Your task to perform on an android device: create a new album in the google photos Image 0: 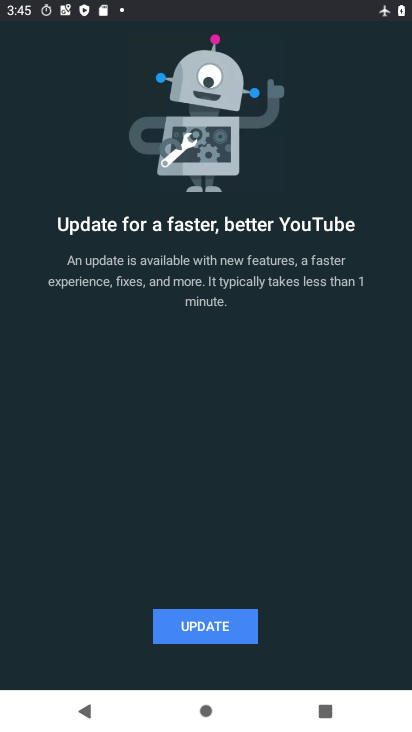
Step 0: press home button
Your task to perform on an android device: create a new album in the google photos Image 1: 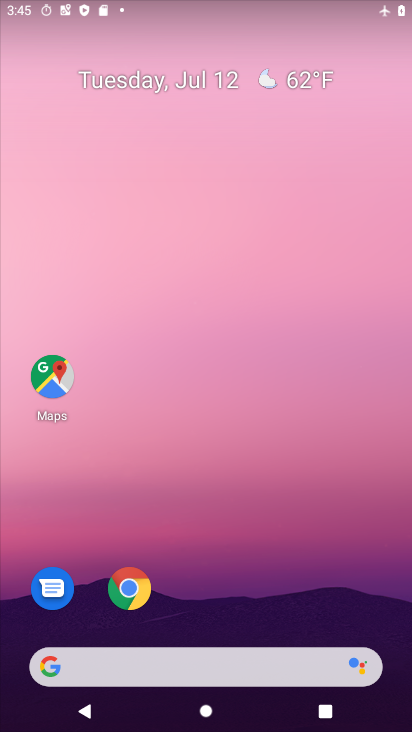
Step 1: drag from (194, 587) to (169, 9)
Your task to perform on an android device: create a new album in the google photos Image 2: 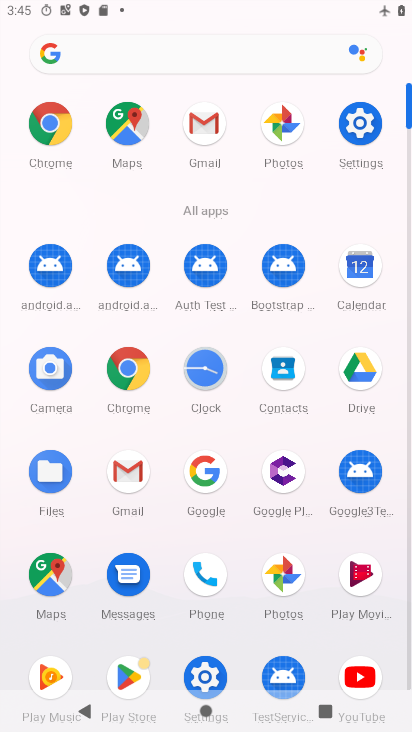
Step 2: click (291, 575)
Your task to perform on an android device: create a new album in the google photos Image 3: 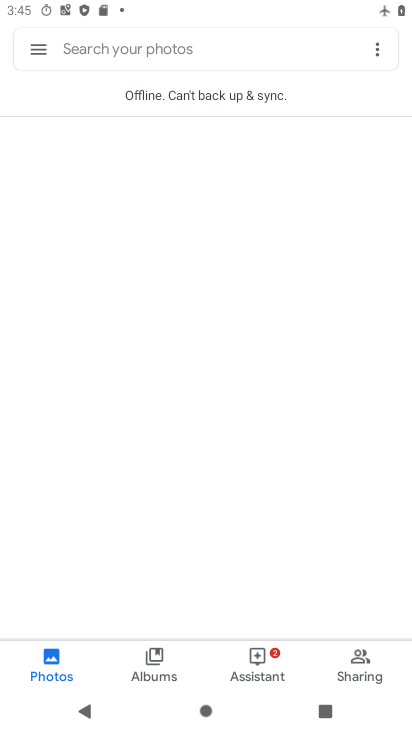
Step 3: task complete